Your task to perform on an android device: clear history in the chrome app Image 0: 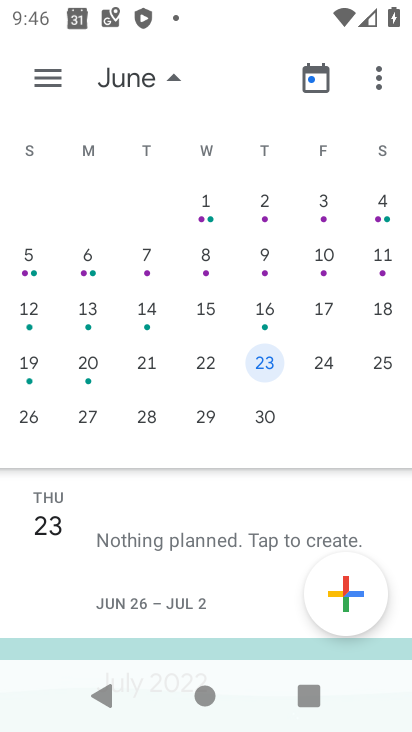
Step 0: press home button
Your task to perform on an android device: clear history in the chrome app Image 1: 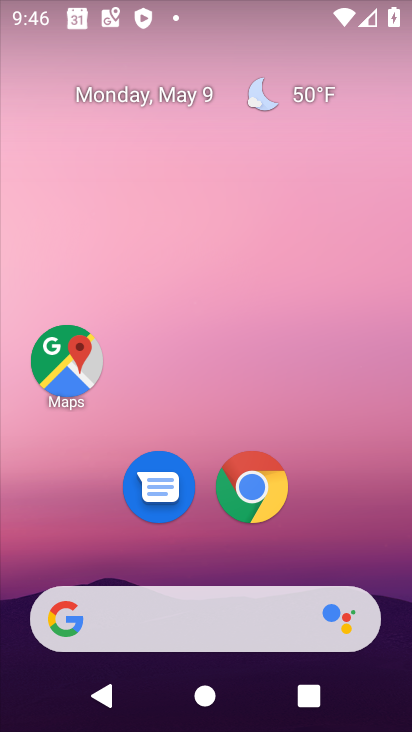
Step 1: click (281, 493)
Your task to perform on an android device: clear history in the chrome app Image 2: 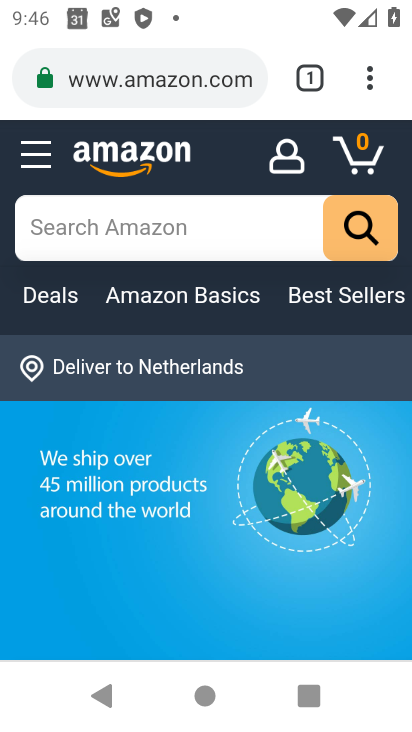
Step 2: click (363, 72)
Your task to perform on an android device: clear history in the chrome app Image 3: 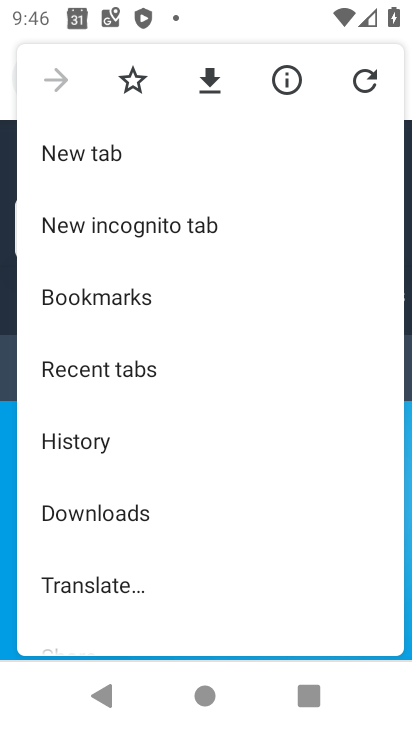
Step 3: click (127, 434)
Your task to perform on an android device: clear history in the chrome app Image 4: 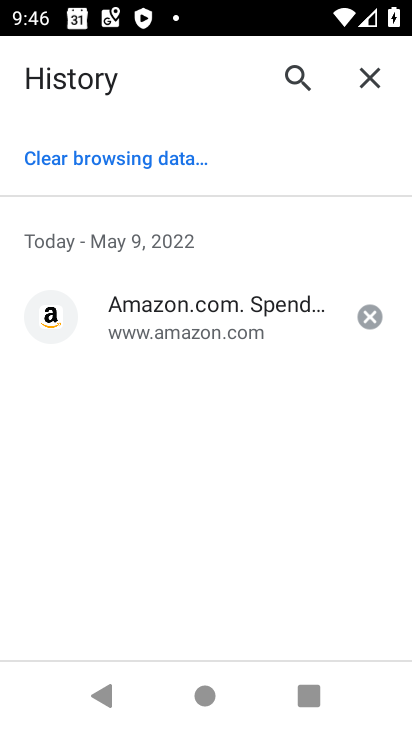
Step 4: click (145, 165)
Your task to perform on an android device: clear history in the chrome app Image 5: 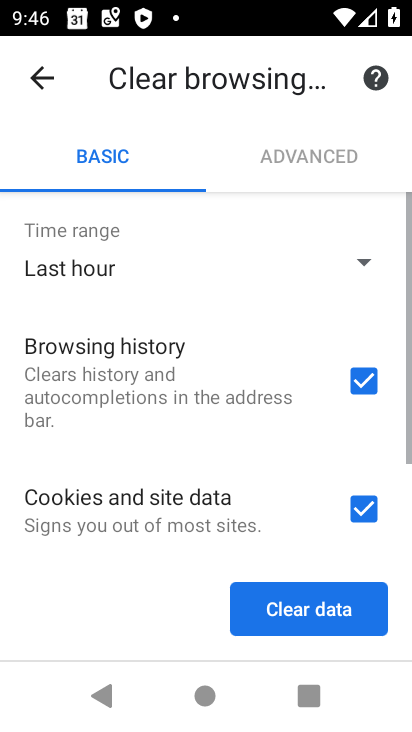
Step 5: click (337, 611)
Your task to perform on an android device: clear history in the chrome app Image 6: 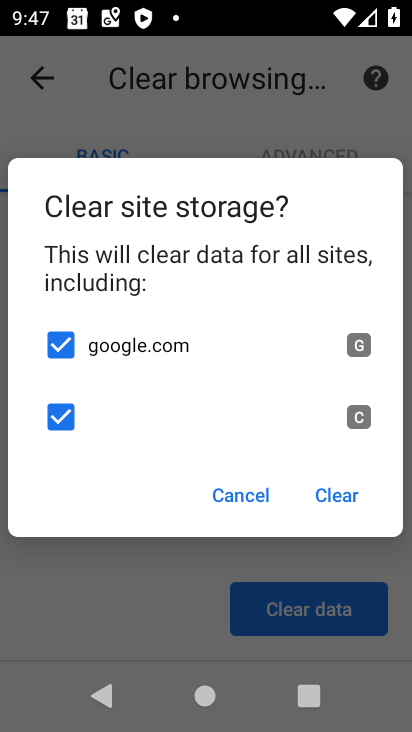
Step 6: click (342, 496)
Your task to perform on an android device: clear history in the chrome app Image 7: 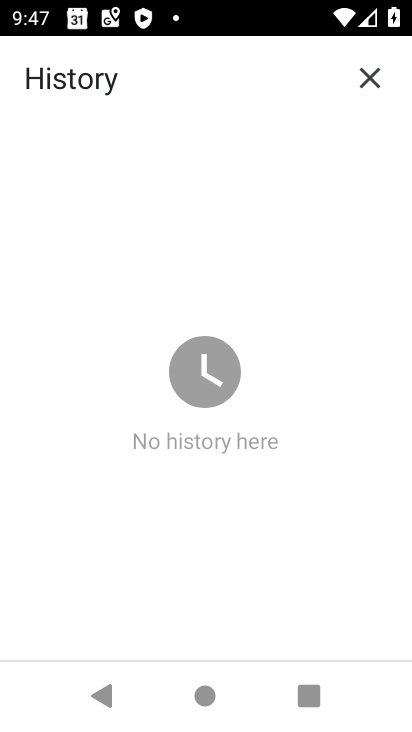
Step 7: task complete